Your task to perform on an android device: Add "duracell triple a" to the cart on ebay Image 0: 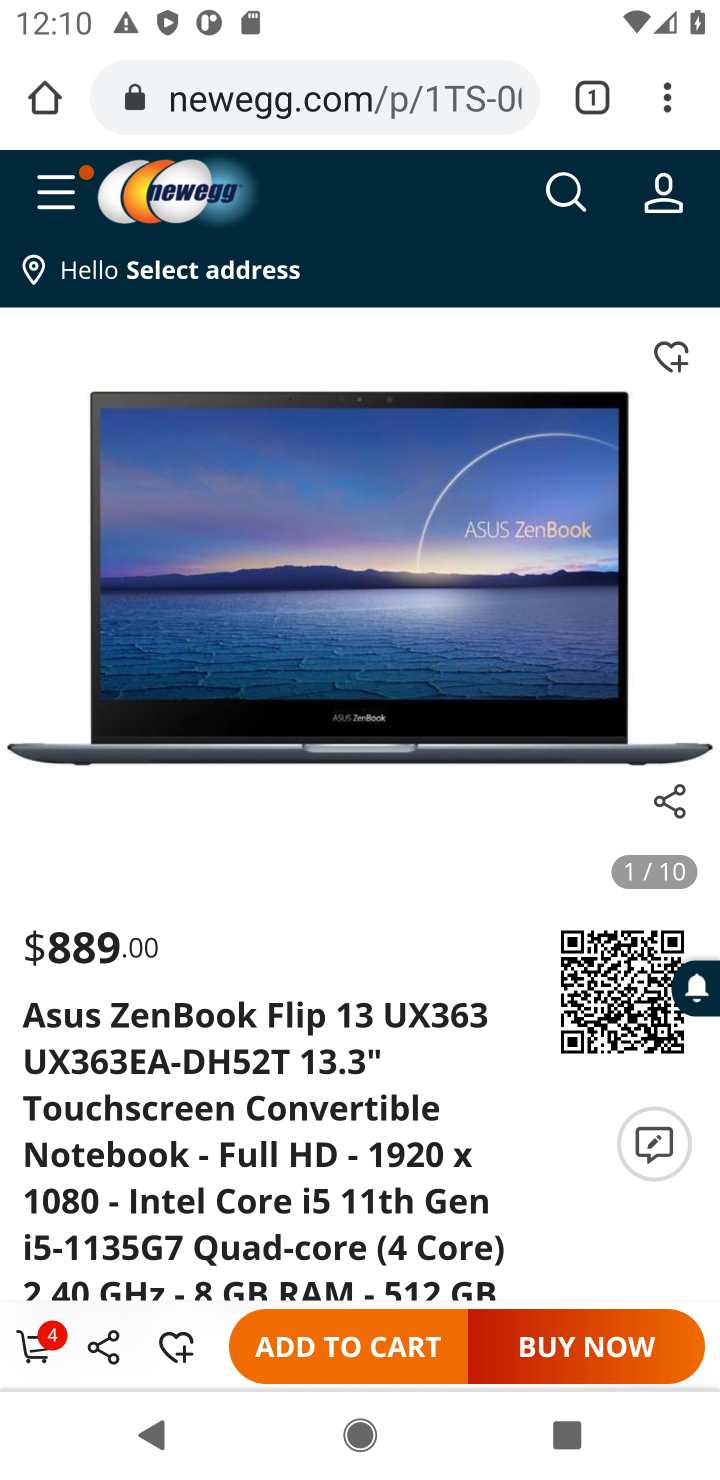
Step 0: click (399, 92)
Your task to perform on an android device: Add "duracell triple a" to the cart on ebay Image 1: 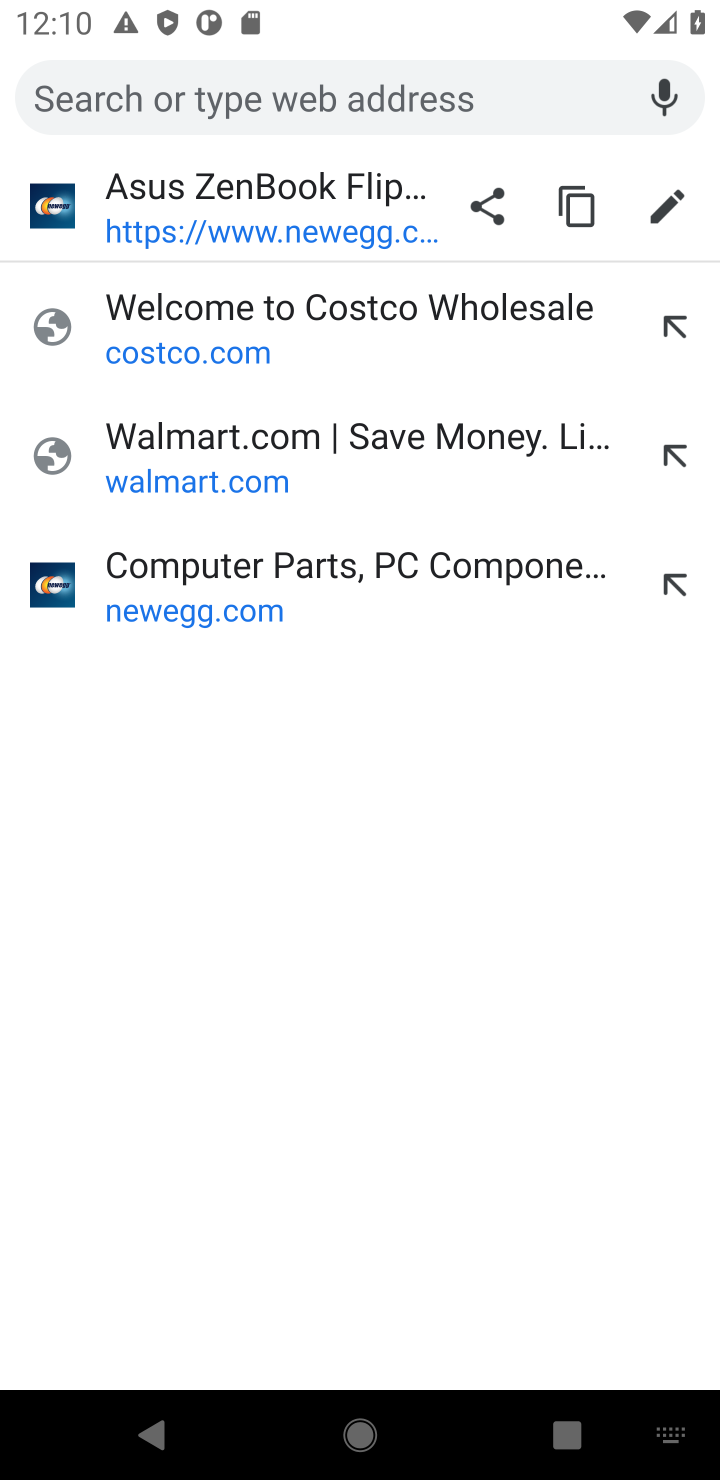
Step 1: type "ebay"
Your task to perform on an android device: Add "duracell triple a" to the cart on ebay Image 2: 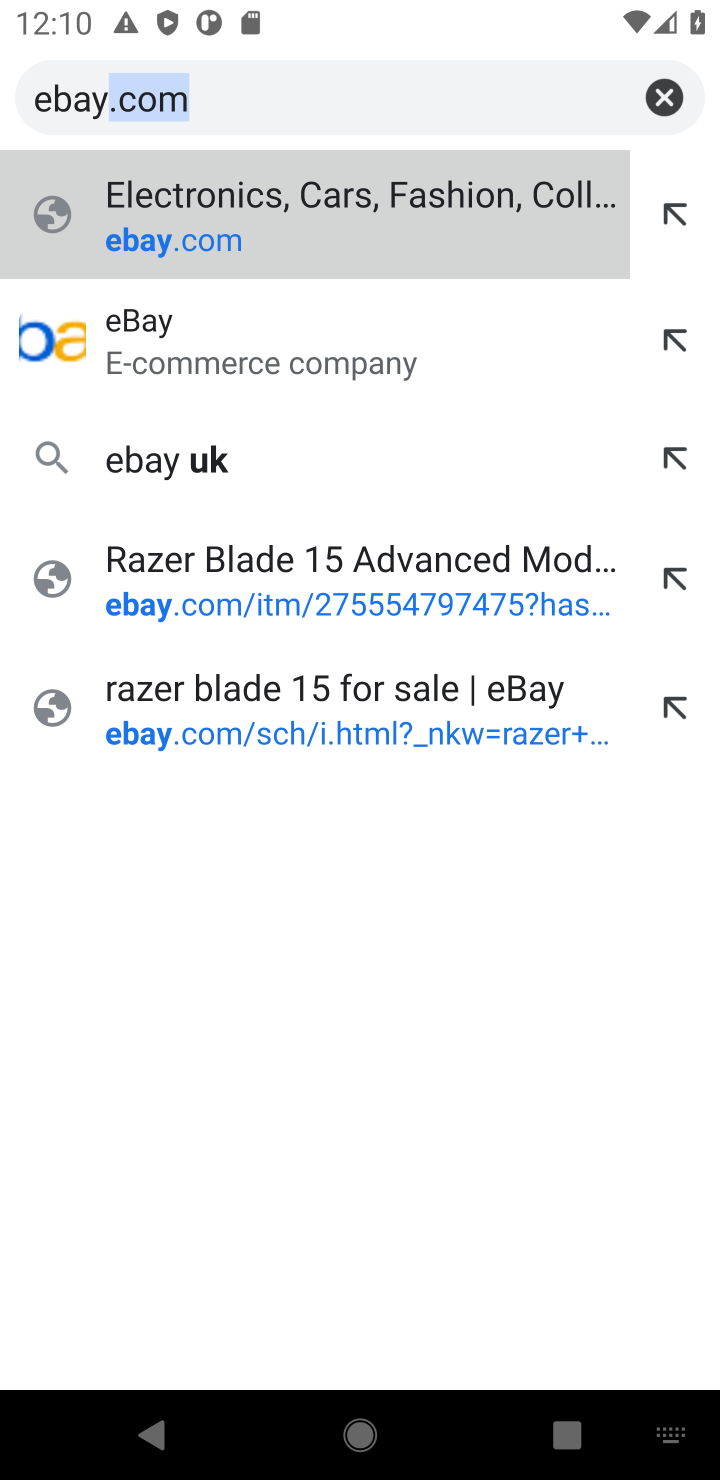
Step 2: click (225, 210)
Your task to perform on an android device: Add "duracell triple a" to the cart on ebay Image 3: 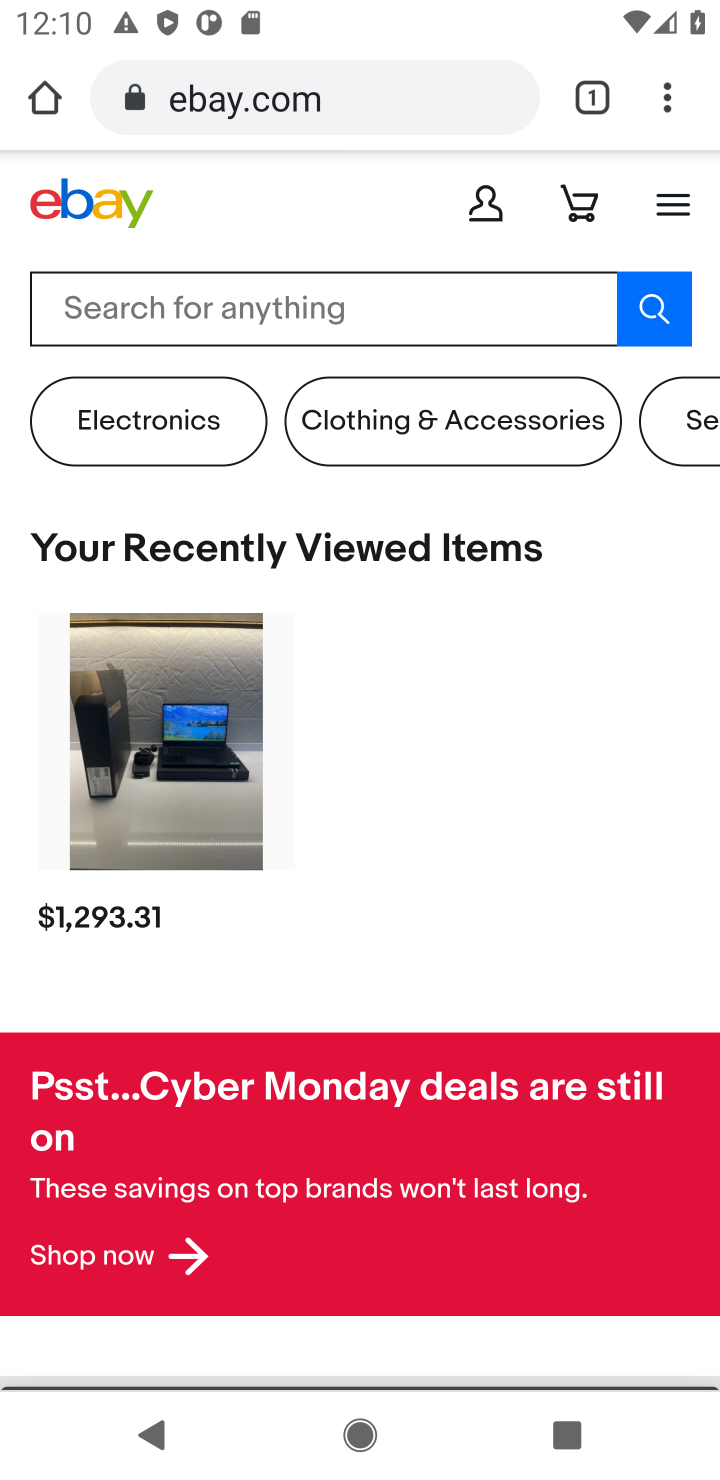
Step 3: click (253, 300)
Your task to perform on an android device: Add "duracell triple a" to the cart on ebay Image 4: 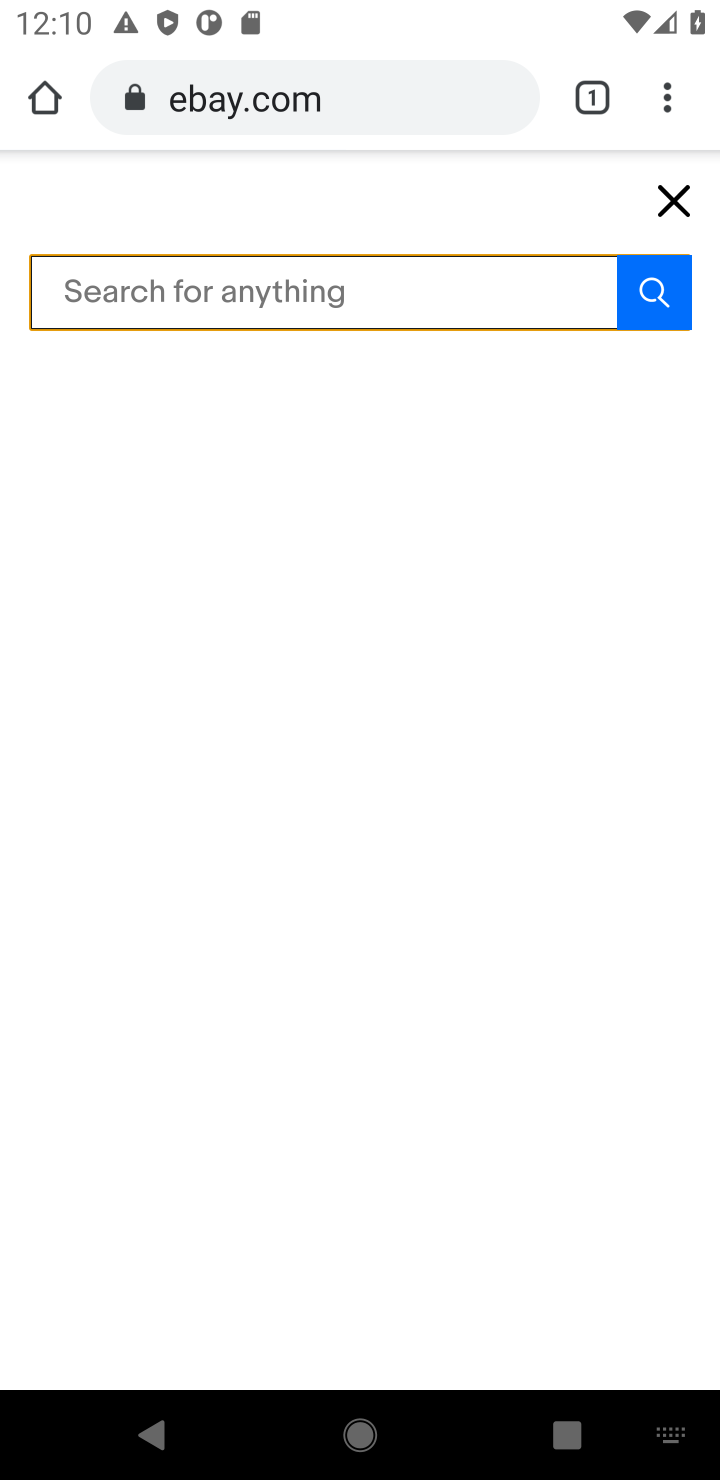
Step 4: type "duracell triple a"
Your task to perform on an android device: Add "duracell triple a" to the cart on ebay Image 5: 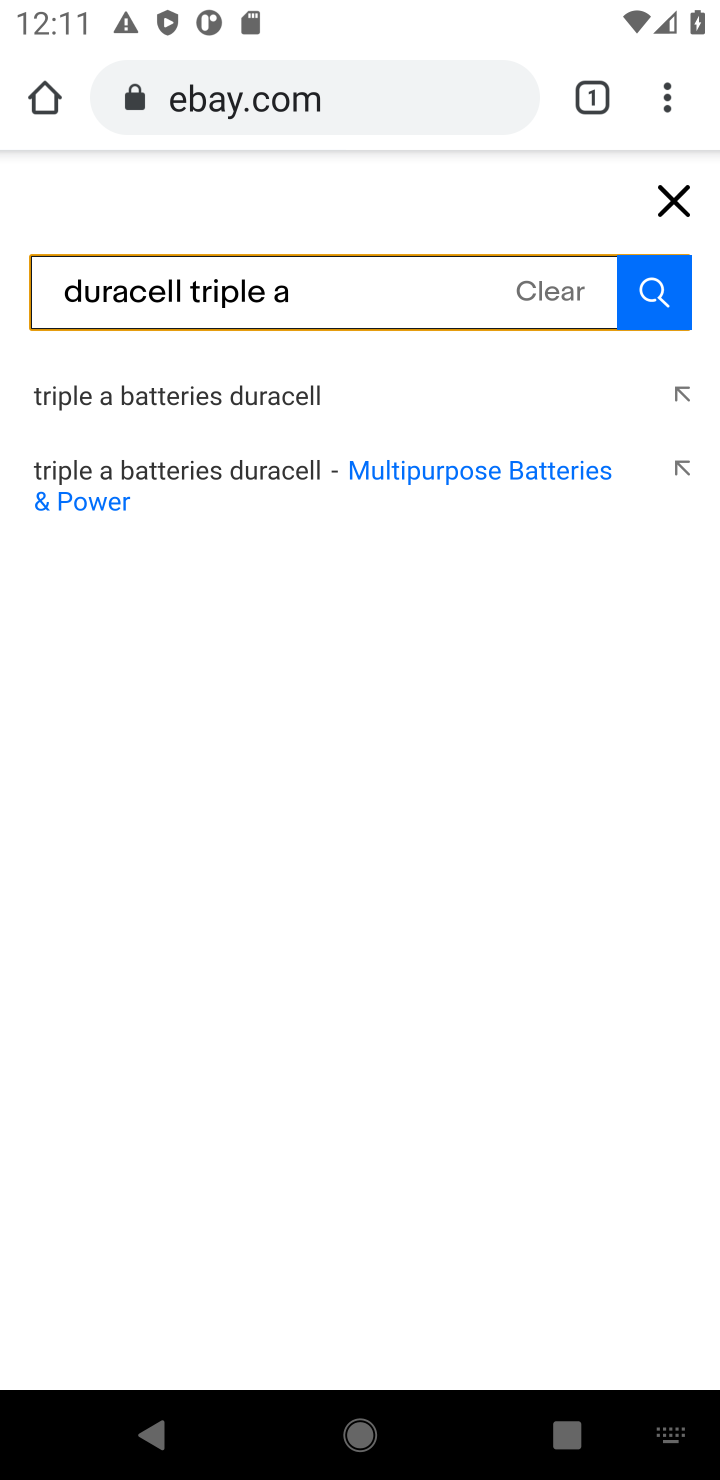
Step 5: click (235, 404)
Your task to perform on an android device: Add "duracell triple a" to the cart on ebay Image 6: 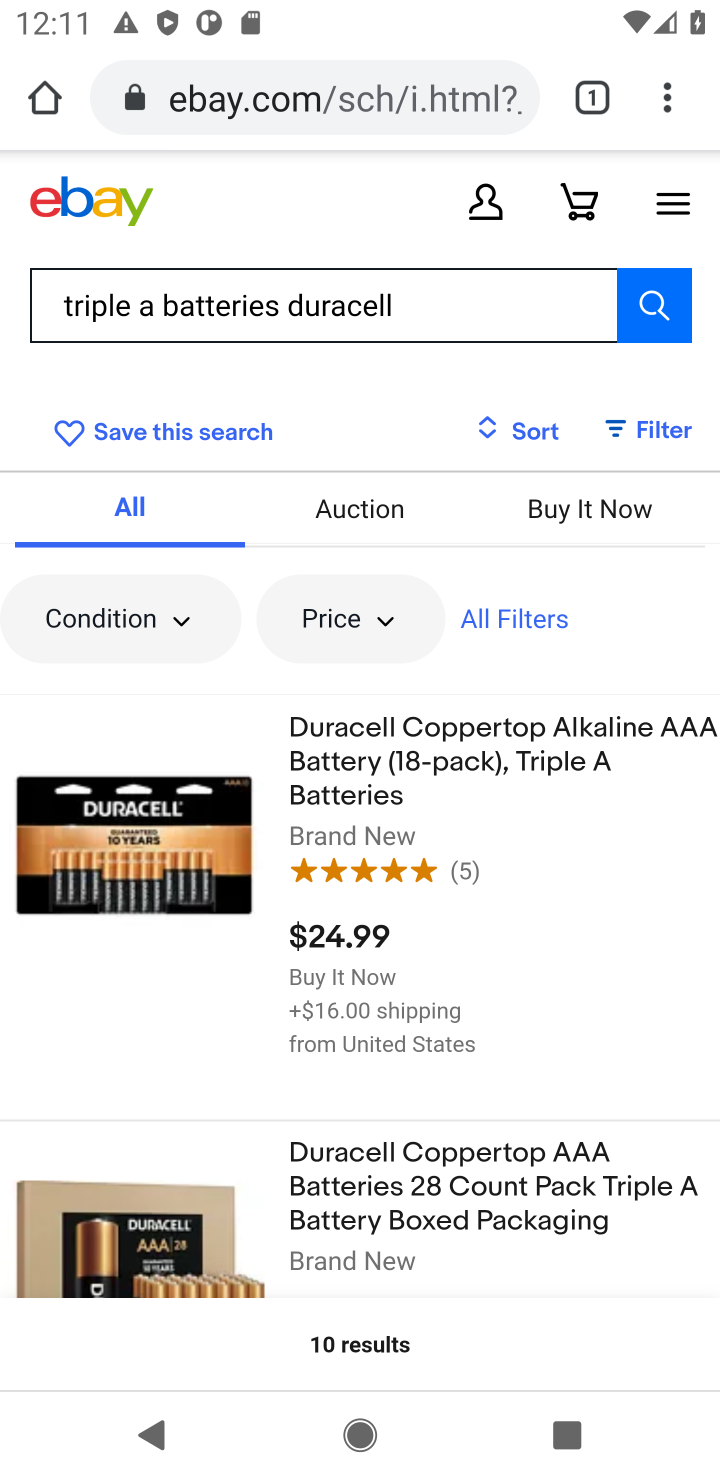
Step 6: click (235, 838)
Your task to perform on an android device: Add "duracell triple a" to the cart on ebay Image 7: 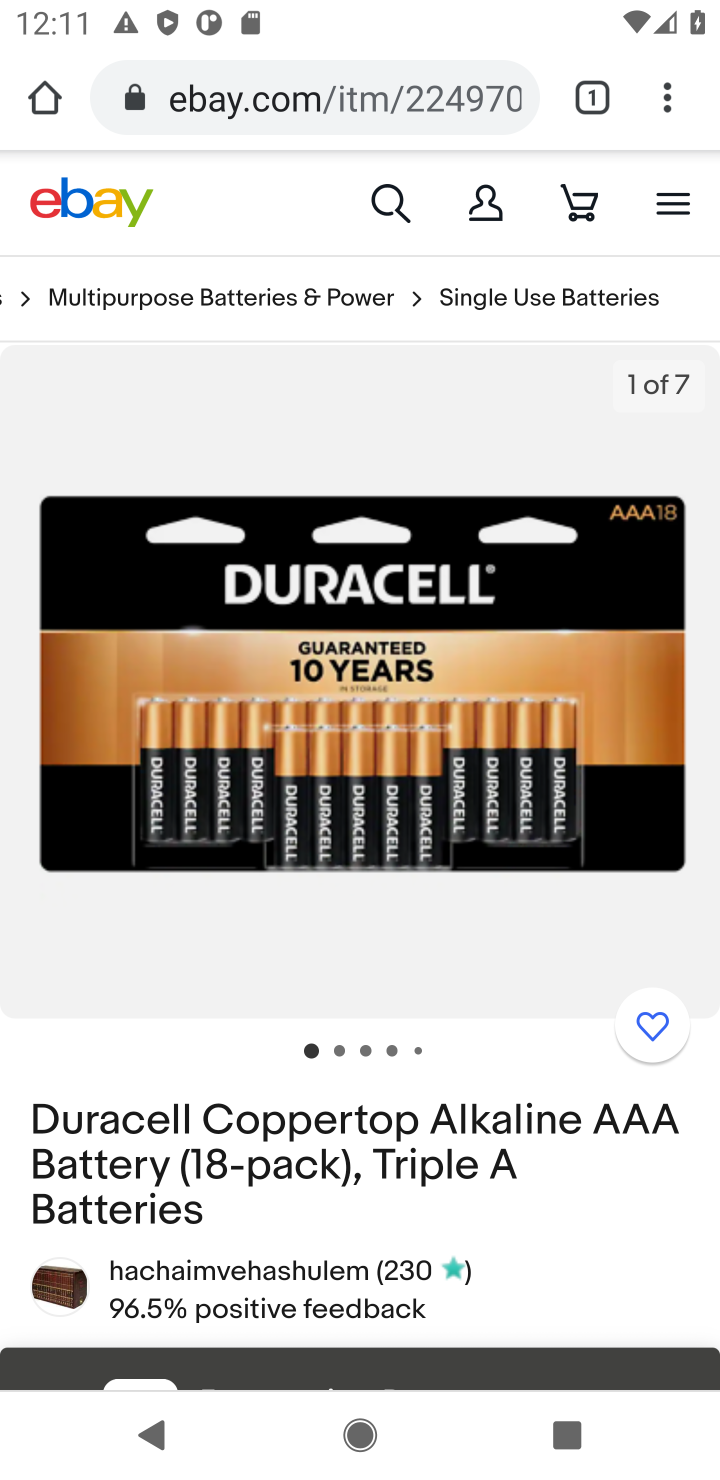
Step 7: drag from (498, 1219) to (305, 160)
Your task to perform on an android device: Add "duracell triple a" to the cart on ebay Image 8: 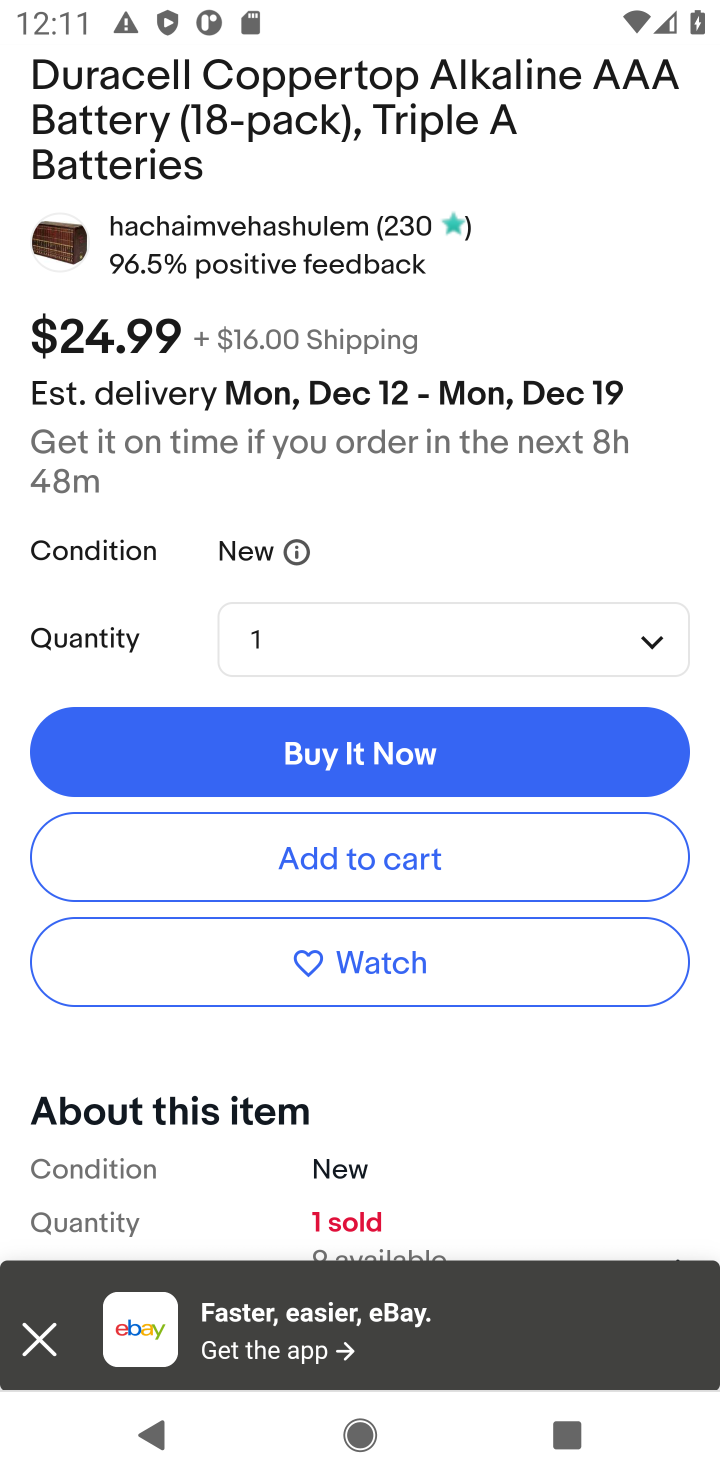
Step 8: click (356, 834)
Your task to perform on an android device: Add "duracell triple a" to the cart on ebay Image 9: 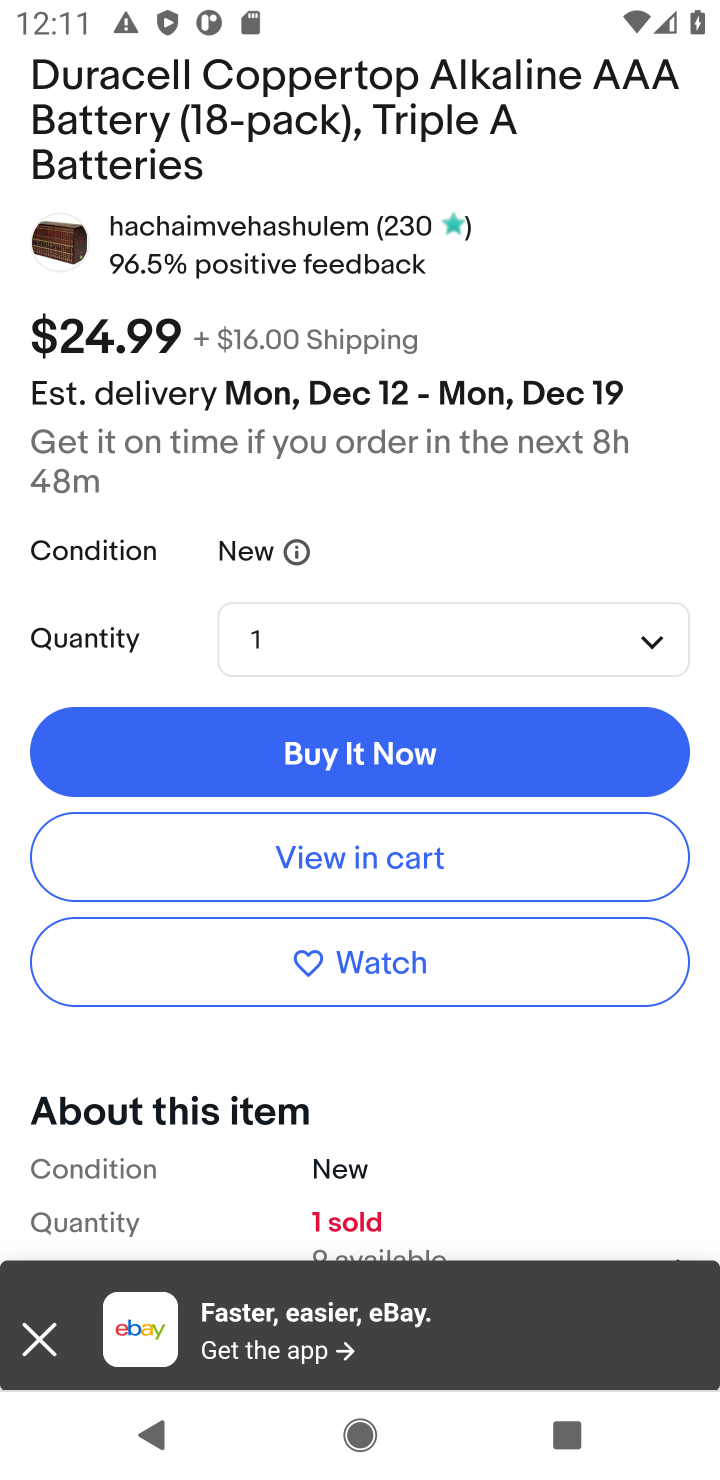
Step 9: task complete